Your task to perform on an android device: Show me productivity apps on the Play Store Image 0: 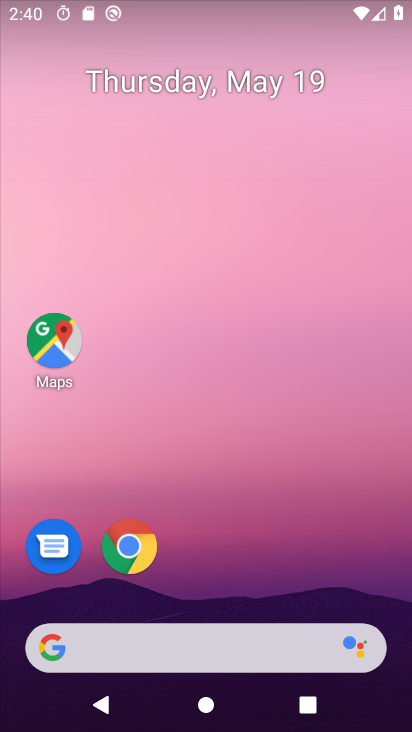
Step 0: press home button
Your task to perform on an android device: Show me productivity apps on the Play Store Image 1: 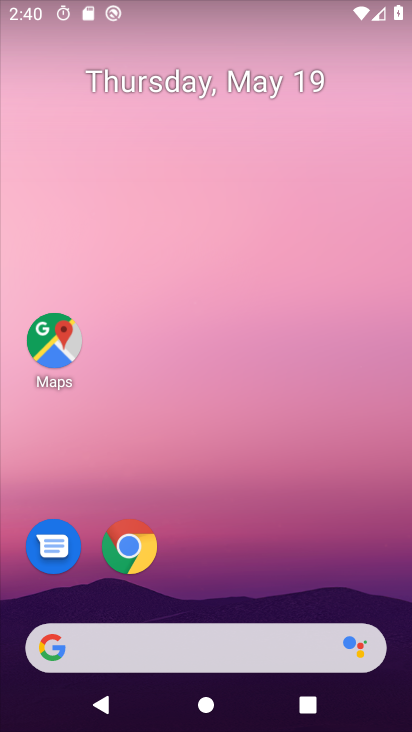
Step 1: drag from (212, 605) to (217, 16)
Your task to perform on an android device: Show me productivity apps on the Play Store Image 2: 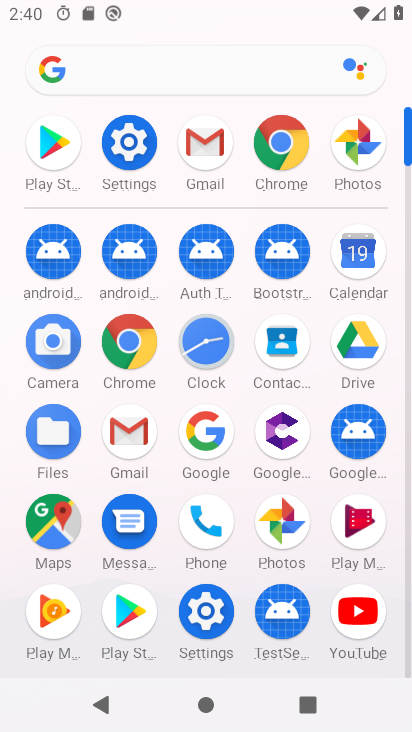
Step 2: click (126, 593)
Your task to perform on an android device: Show me productivity apps on the Play Store Image 3: 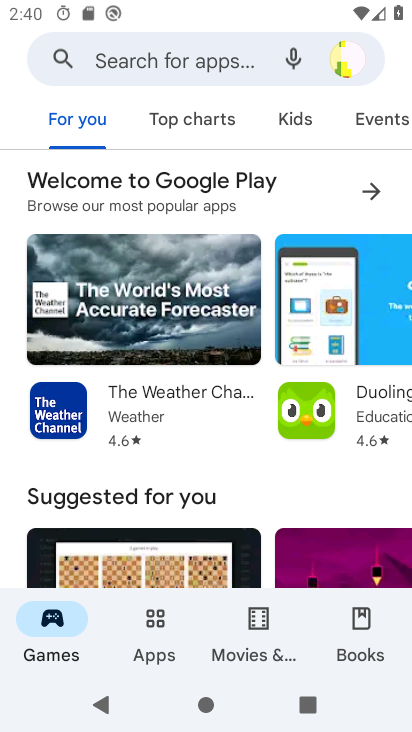
Step 3: click (159, 639)
Your task to perform on an android device: Show me productivity apps on the Play Store Image 4: 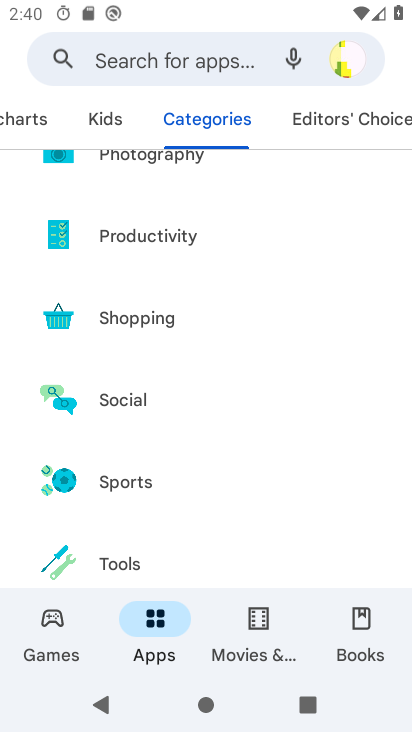
Step 4: click (135, 230)
Your task to perform on an android device: Show me productivity apps on the Play Store Image 5: 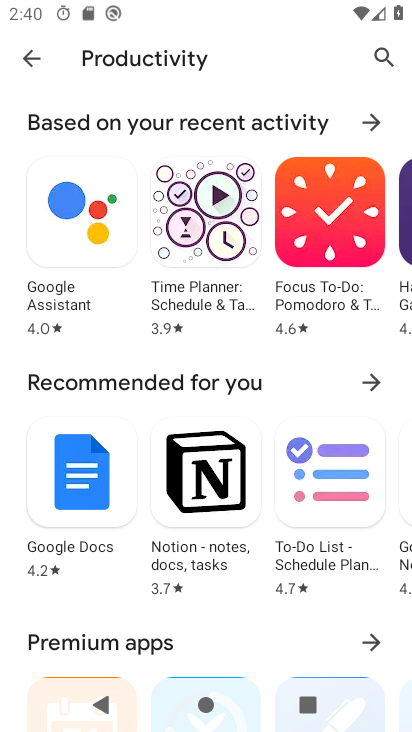
Step 5: drag from (196, 423) to (200, 176)
Your task to perform on an android device: Show me productivity apps on the Play Store Image 6: 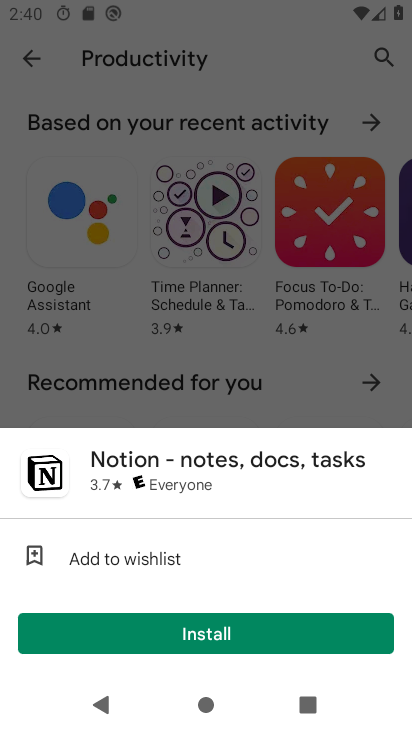
Step 6: click (207, 369)
Your task to perform on an android device: Show me productivity apps on the Play Store Image 7: 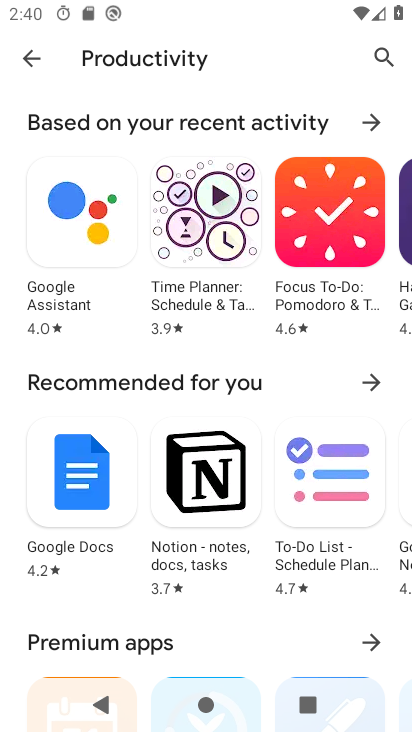
Step 7: drag from (245, 518) to (251, 167)
Your task to perform on an android device: Show me productivity apps on the Play Store Image 8: 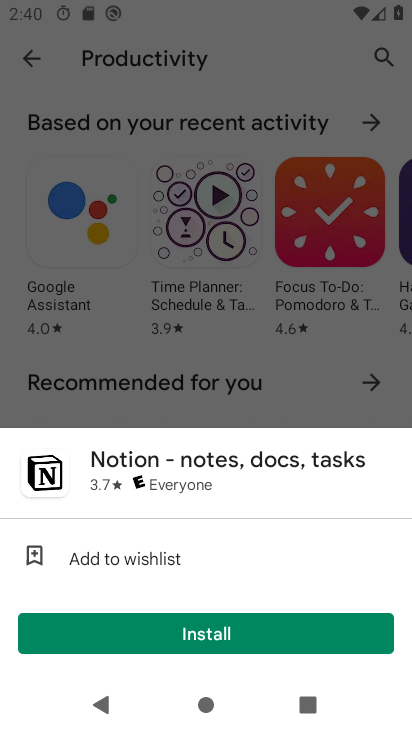
Step 8: click (197, 327)
Your task to perform on an android device: Show me productivity apps on the Play Store Image 9: 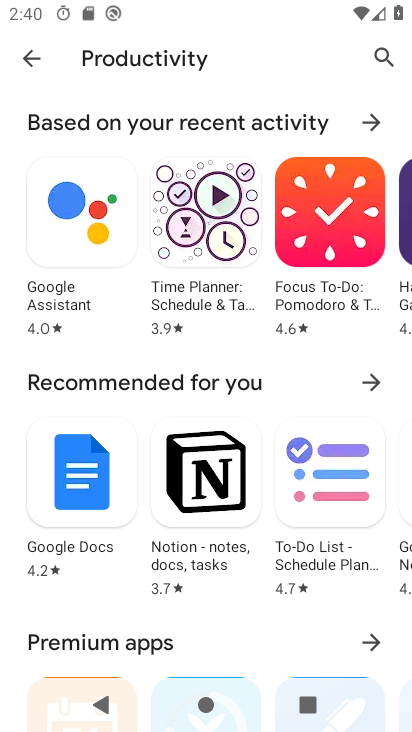
Step 9: task complete